Your task to perform on an android device: Open Reddit.com Image 0: 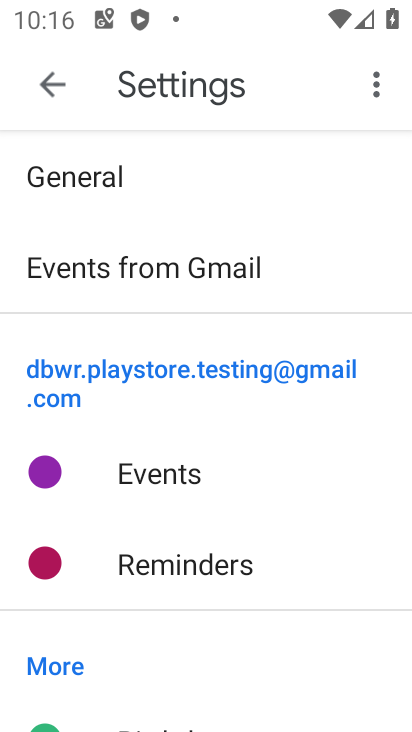
Step 0: press home button
Your task to perform on an android device: Open Reddit.com Image 1: 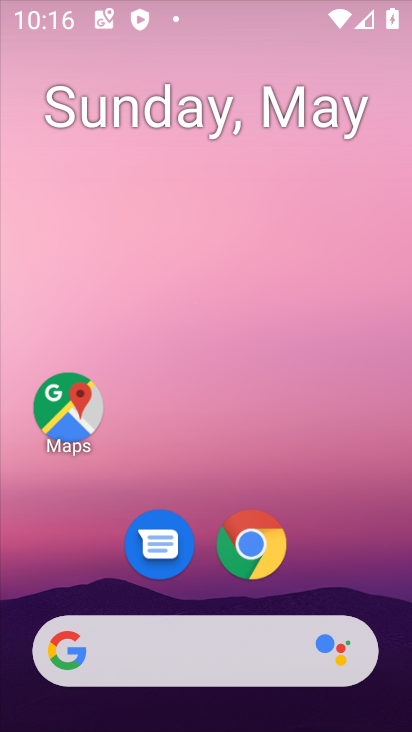
Step 1: drag from (301, 496) to (311, 141)
Your task to perform on an android device: Open Reddit.com Image 2: 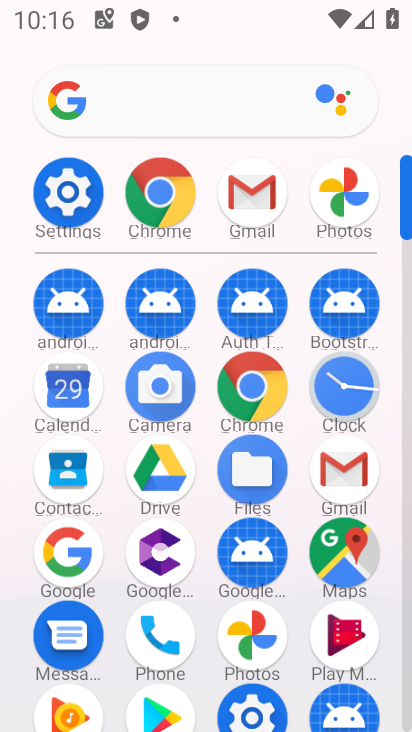
Step 2: click (141, 204)
Your task to perform on an android device: Open Reddit.com Image 3: 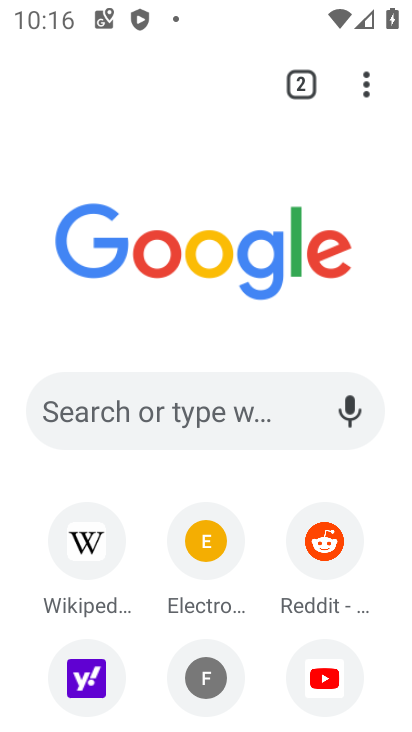
Step 3: click (319, 538)
Your task to perform on an android device: Open Reddit.com Image 4: 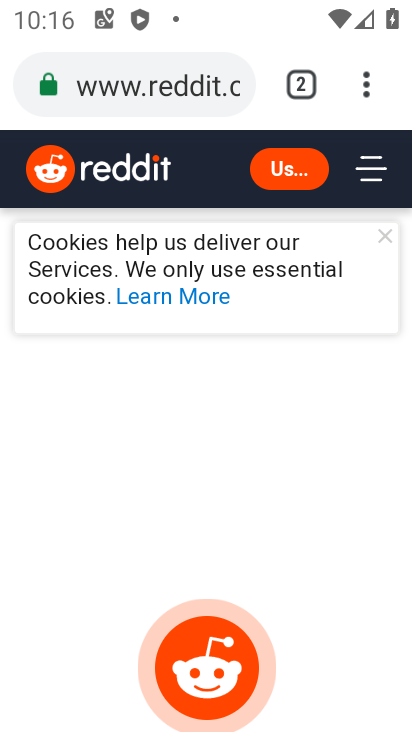
Step 4: task complete